Your task to perform on an android device: stop showing notifications on the lock screen Image 0: 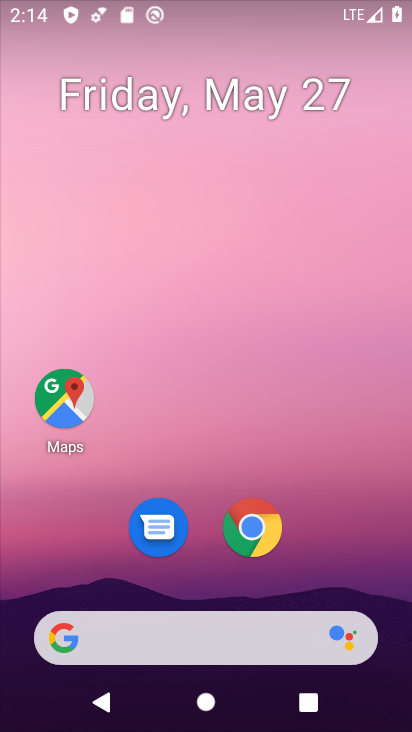
Step 0: drag from (298, 665) to (273, 43)
Your task to perform on an android device: stop showing notifications on the lock screen Image 1: 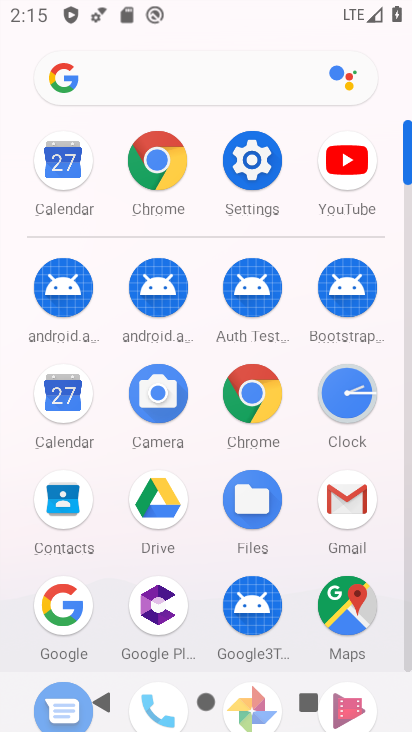
Step 1: click (265, 167)
Your task to perform on an android device: stop showing notifications on the lock screen Image 2: 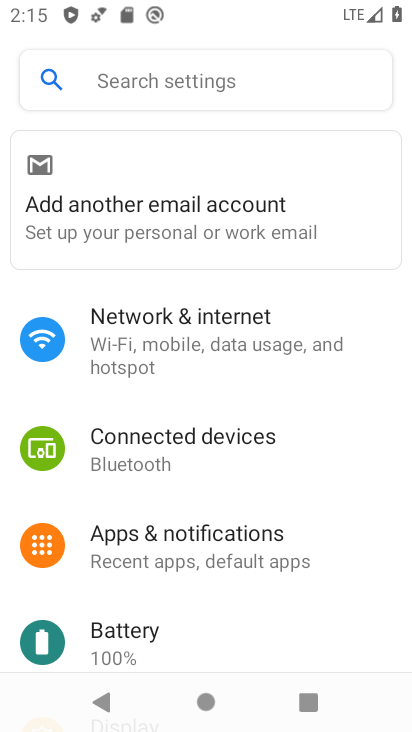
Step 2: click (206, 549)
Your task to perform on an android device: stop showing notifications on the lock screen Image 3: 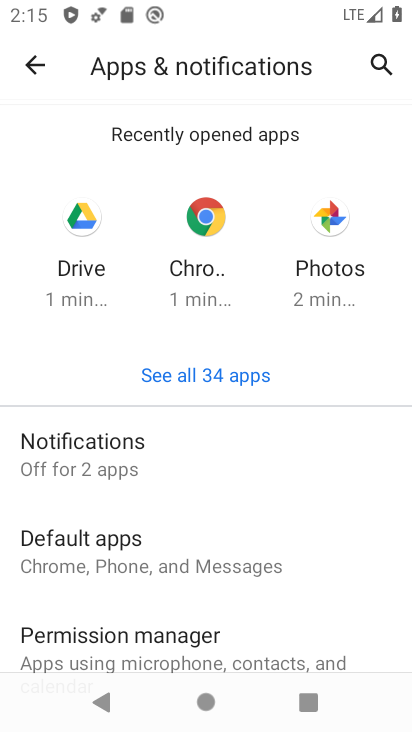
Step 3: click (154, 463)
Your task to perform on an android device: stop showing notifications on the lock screen Image 4: 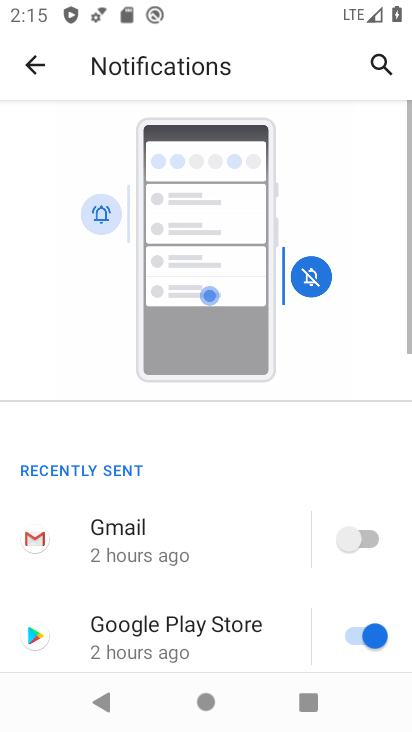
Step 4: drag from (229, 564) to (341, 24)
Your task to perform on an android device: stop showing notifications on the lock screen Image 5: 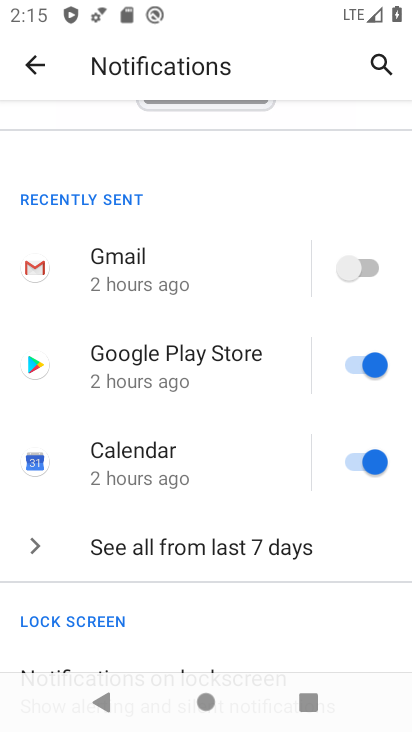
Step 5: click (152, 657)
Your task to perform on an android device: stop showing notifications on the lock screen Image 6: 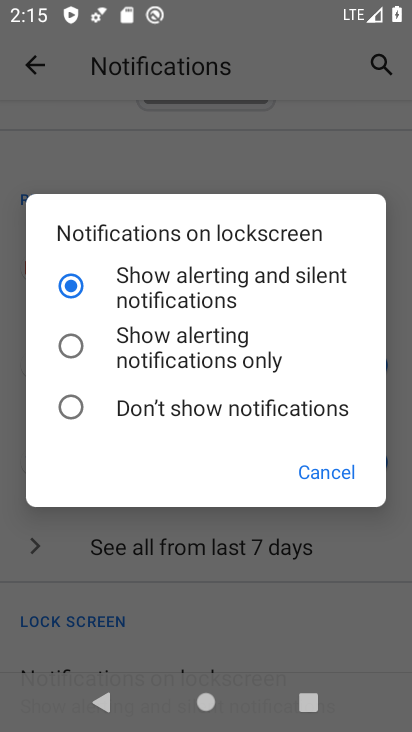
Step 6: click (229, 400)
Your task to perform on an android device: stop showing notifications on the lock screen Image 7: 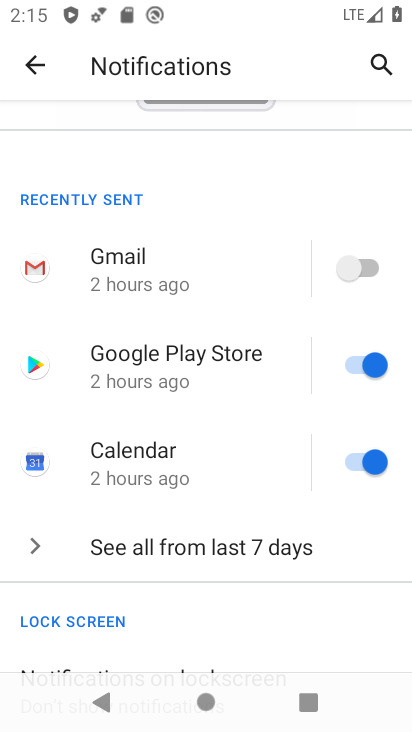
Step 7: task complete